Your task to perform on an android device: create a new album in the google photos Image 0: 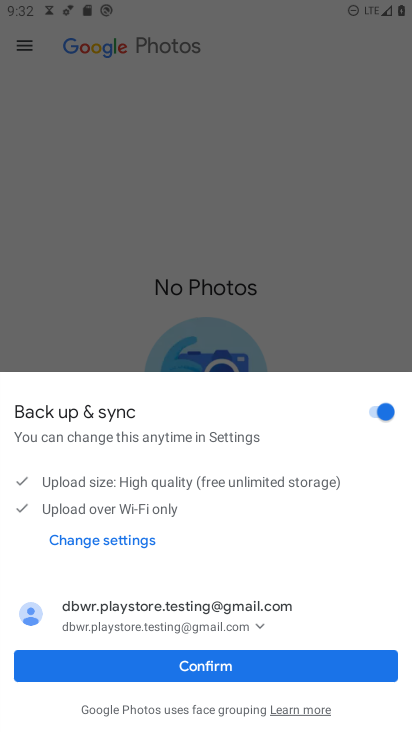
Step 0: press home button
Your task to perform on an android device: create a new album in the google photos Image 1: 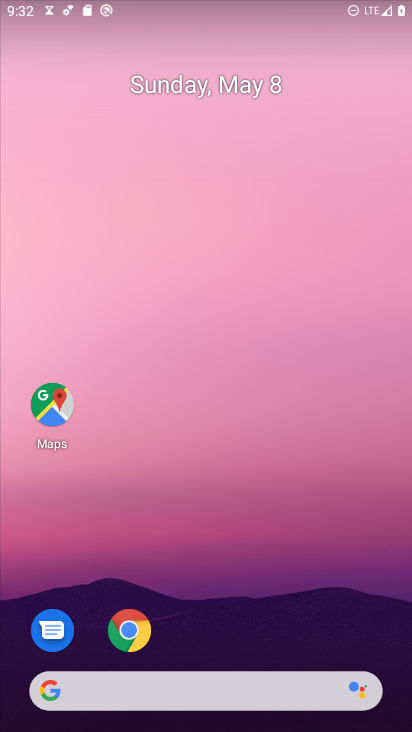
Step 1: drag from (154, 691) to (303, 114)
Your task to perform on an android device: create a new album in the google photos Image 2: 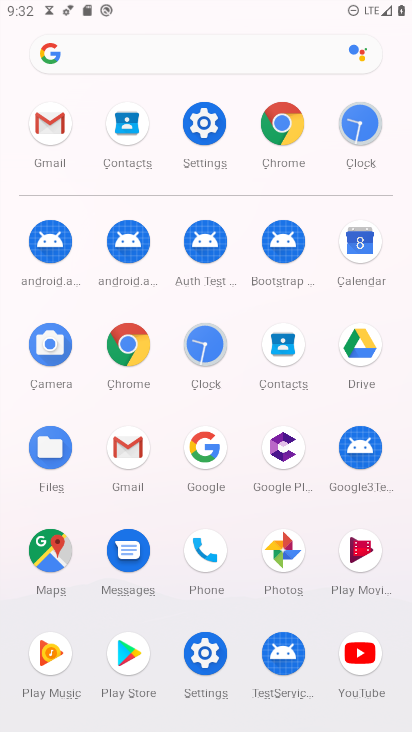
Step 2: click (285, 559)
Your task to perform on an android device: create a new album in the google photos Image 3: 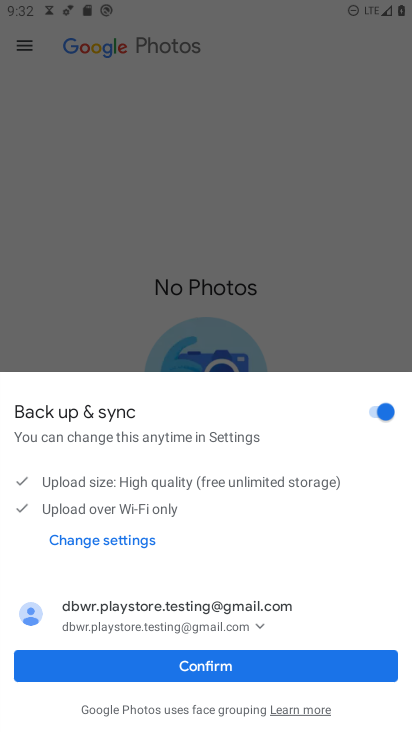
Step 3: click (218, 669)
Your task to perform on an android device: create a new album in the google photos Image 4: 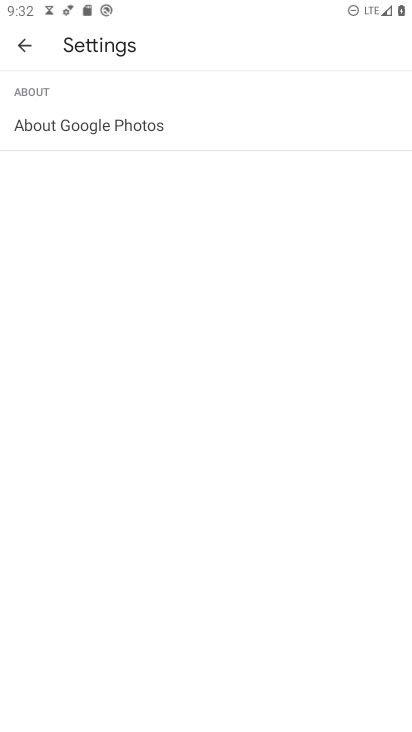
Step 4: click (25, 45)
Your task to perform on an android device: create a new album in the google photos Image 5: 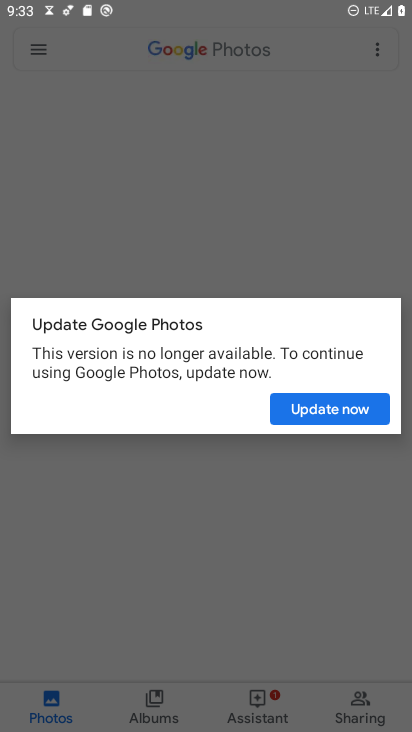
Step 5: click (334, 409)
Your task to perform on an android device: create a new album in the google photos Image 6: 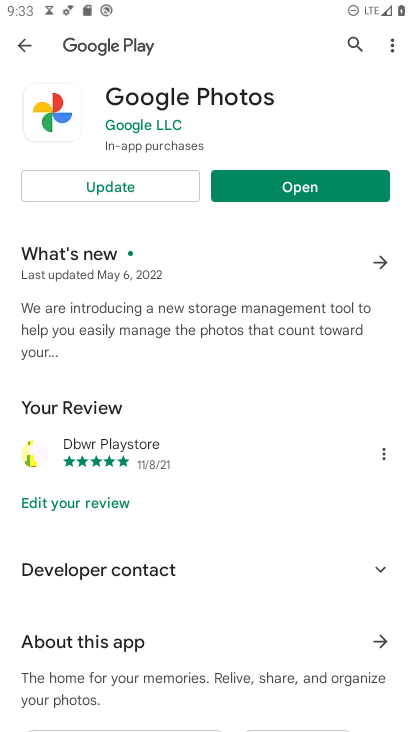
Step 6: click (306, 192)
Your task to perform on an android device: create a new album in the google photos Image 7: 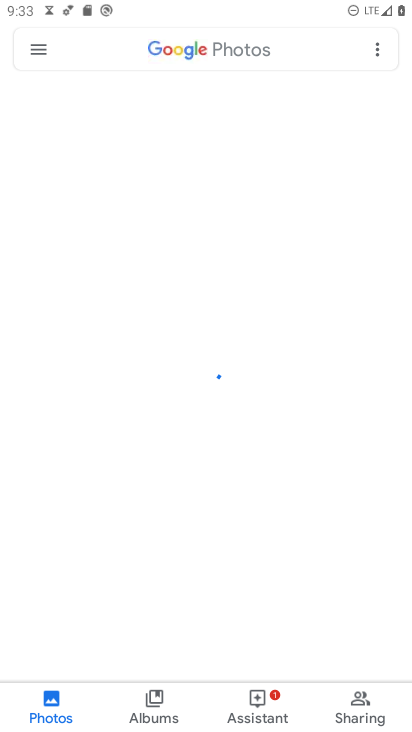
Step 7: click (159, 716)
Your task to perform on an android device: create a new album in the google photos Image 8: 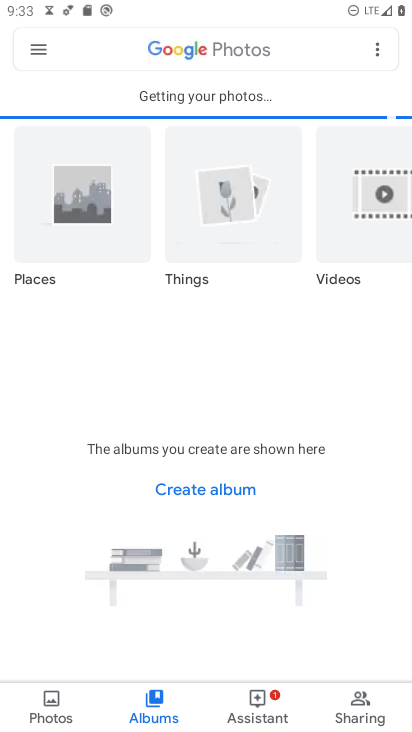
Step 8: click (230, 487)
Your task to perform on an android device: create a new album in the google photos Image 9: 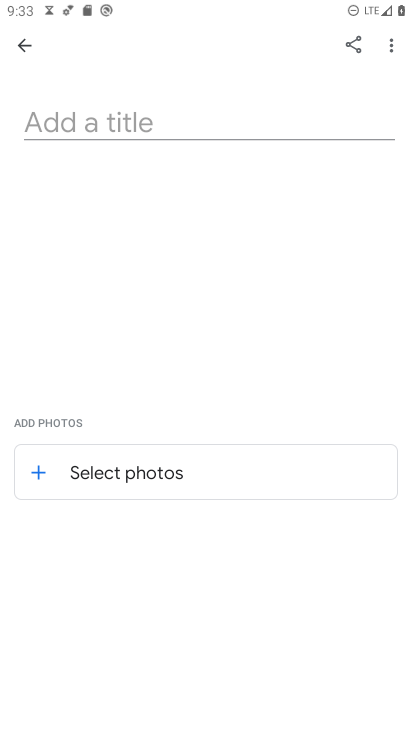
Step 9: click (165, 466)
Your task to perform on an android device: create a new album in the google photos Image 10: 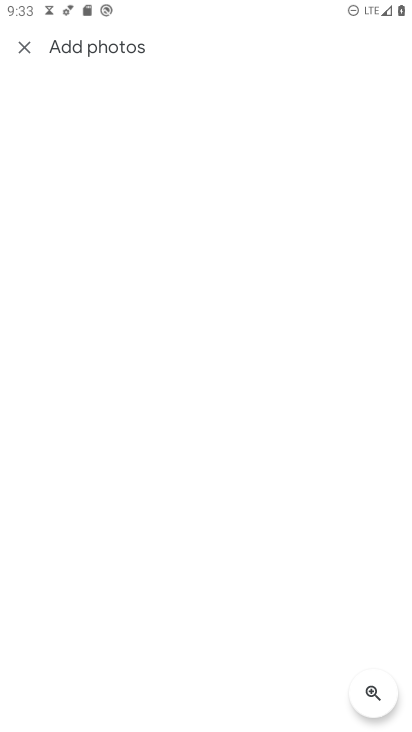
Step 10: task complete